Your task to perform on an android device: Search for "logitech g933" on amazon, select the first entry, add it to the cart, then select checkout. Image 0: 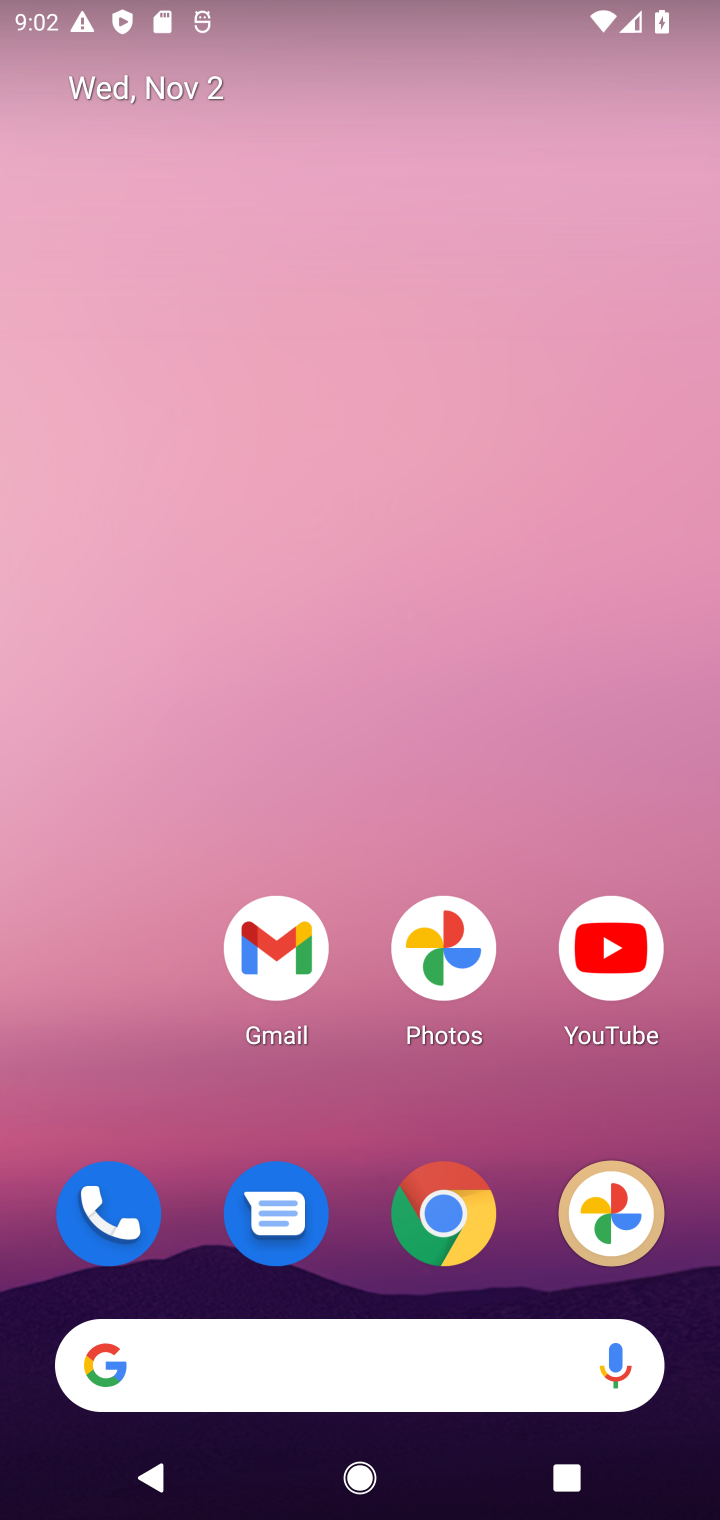
Step 0: click (430, 1217)
Your task to perform on an android device: Search for "logitech g933" on amazon, select the first entry, add it to the cart, then select checkout. Image 1: 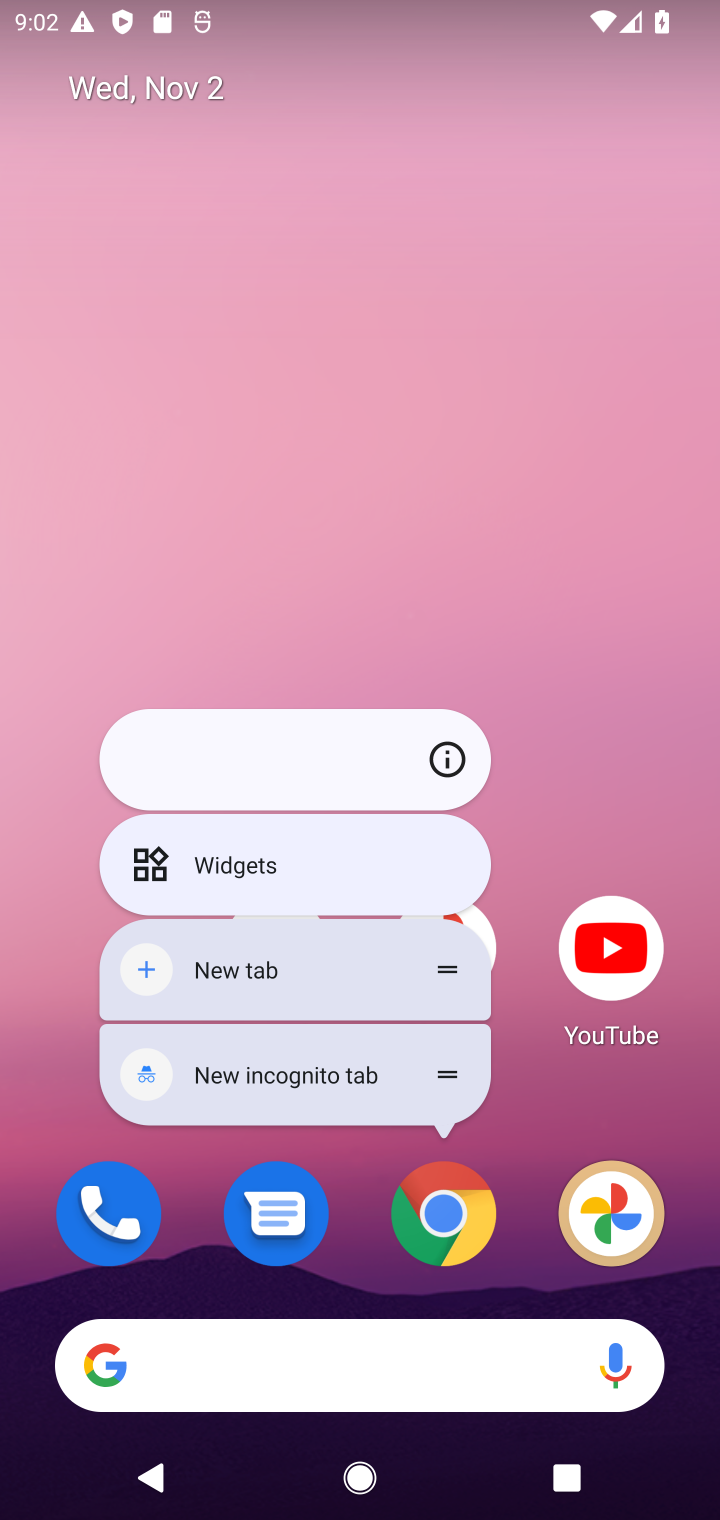
Step 1: click (430, 1217)
Your task to perform on an android device: Search for "logitech g933" on amazon, select the first entry, add it to the cart, then select checkout. Image 2: 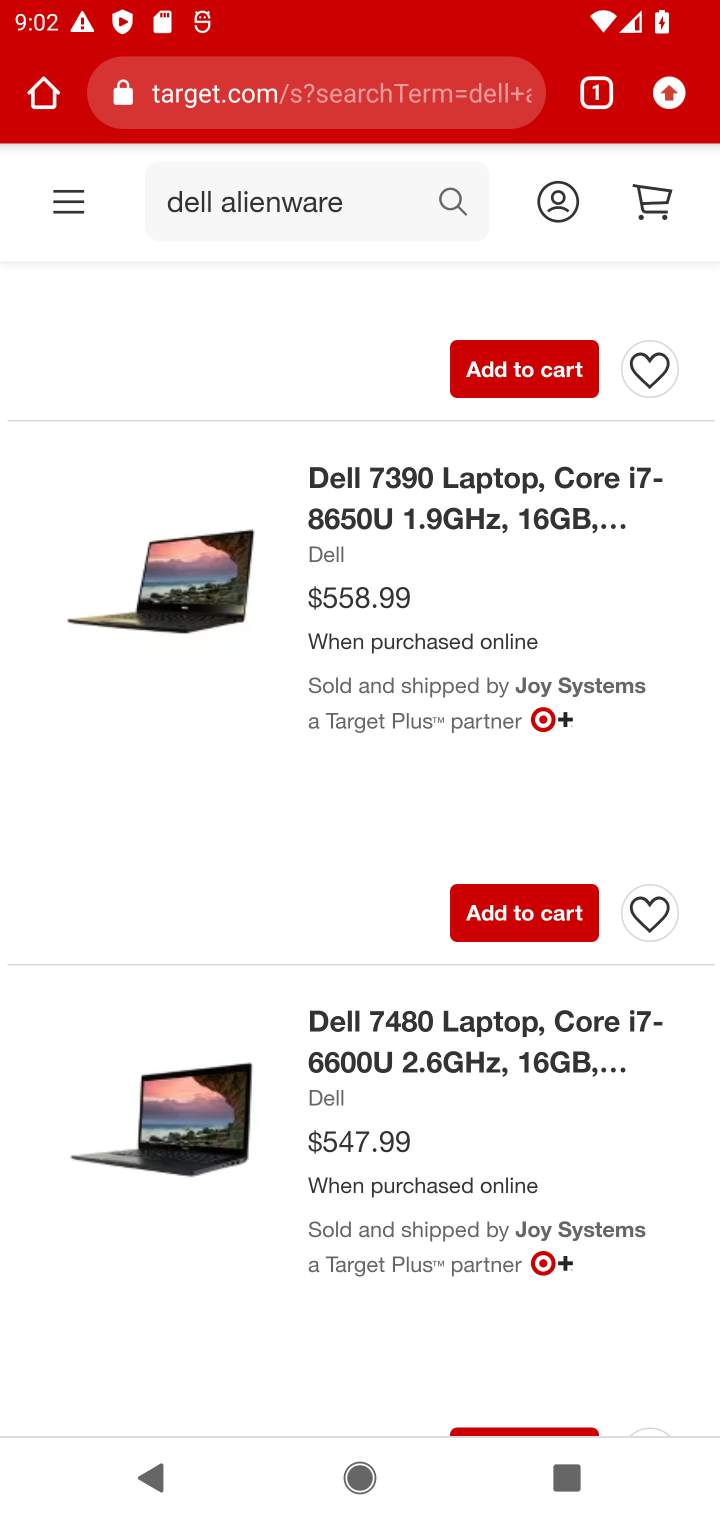
Step 2: click (288, 101)
Your task to perform on an android device: Search for "logitech g933" on amazon, select the first entry, add it to the cart, then select checkout. Image 3: 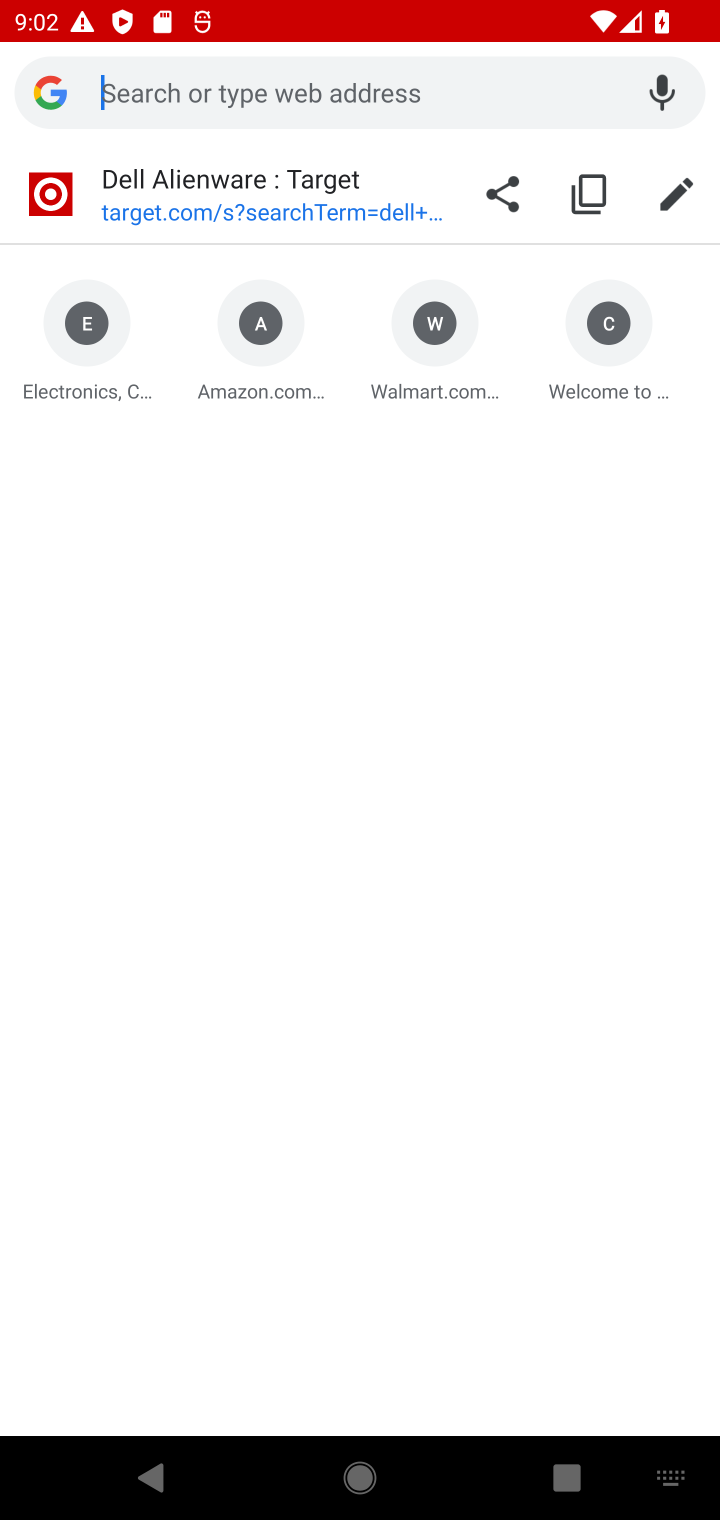
Step 3: click (269, 338)
Your task to perform on an android device: Search for "logitech g933" on amazon, select the first entry, add it to the cart, then select checkout. Image 4: 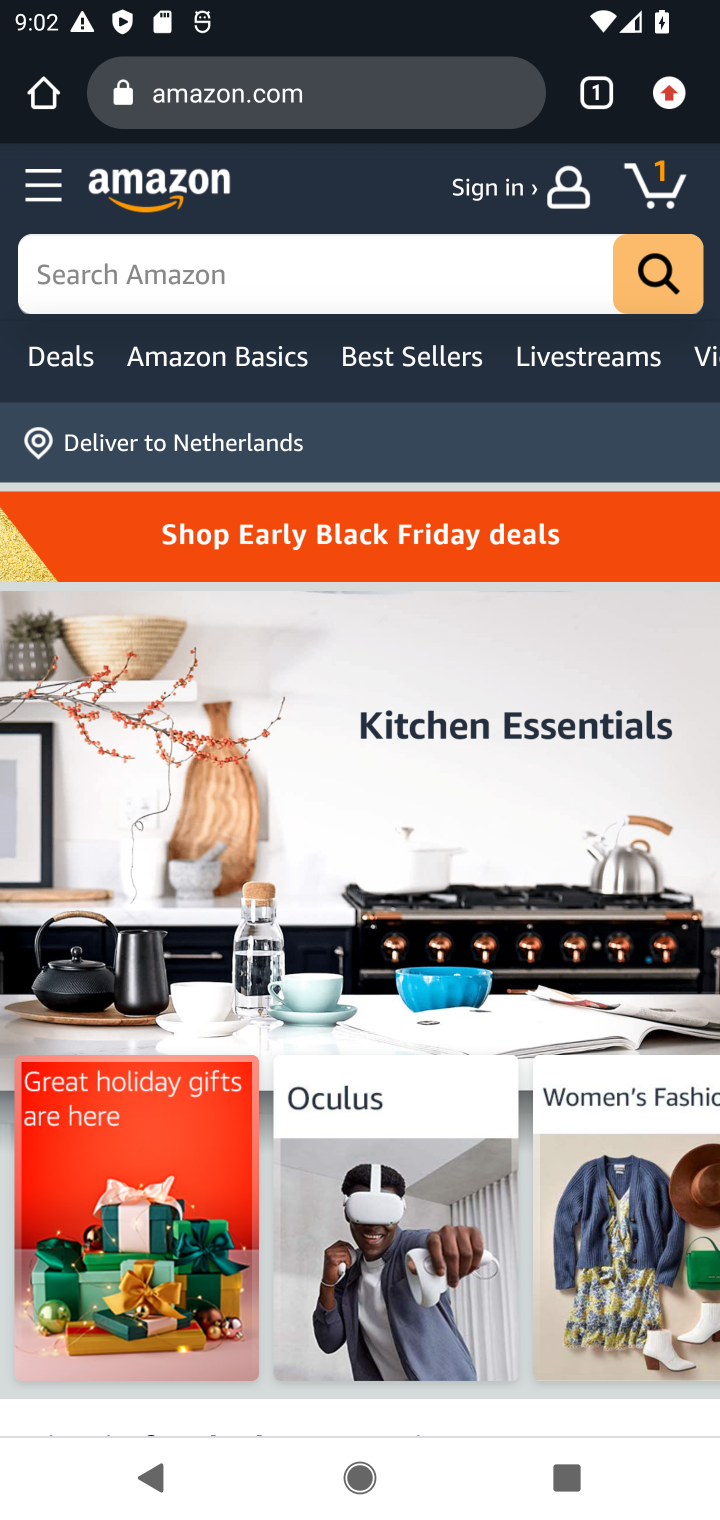
Step 4: click (206, 287)
Your task to perform on an android device: Search for "logitech g933" on amazon, select the first entry, add it to the cart, then select checkout. Image 5: 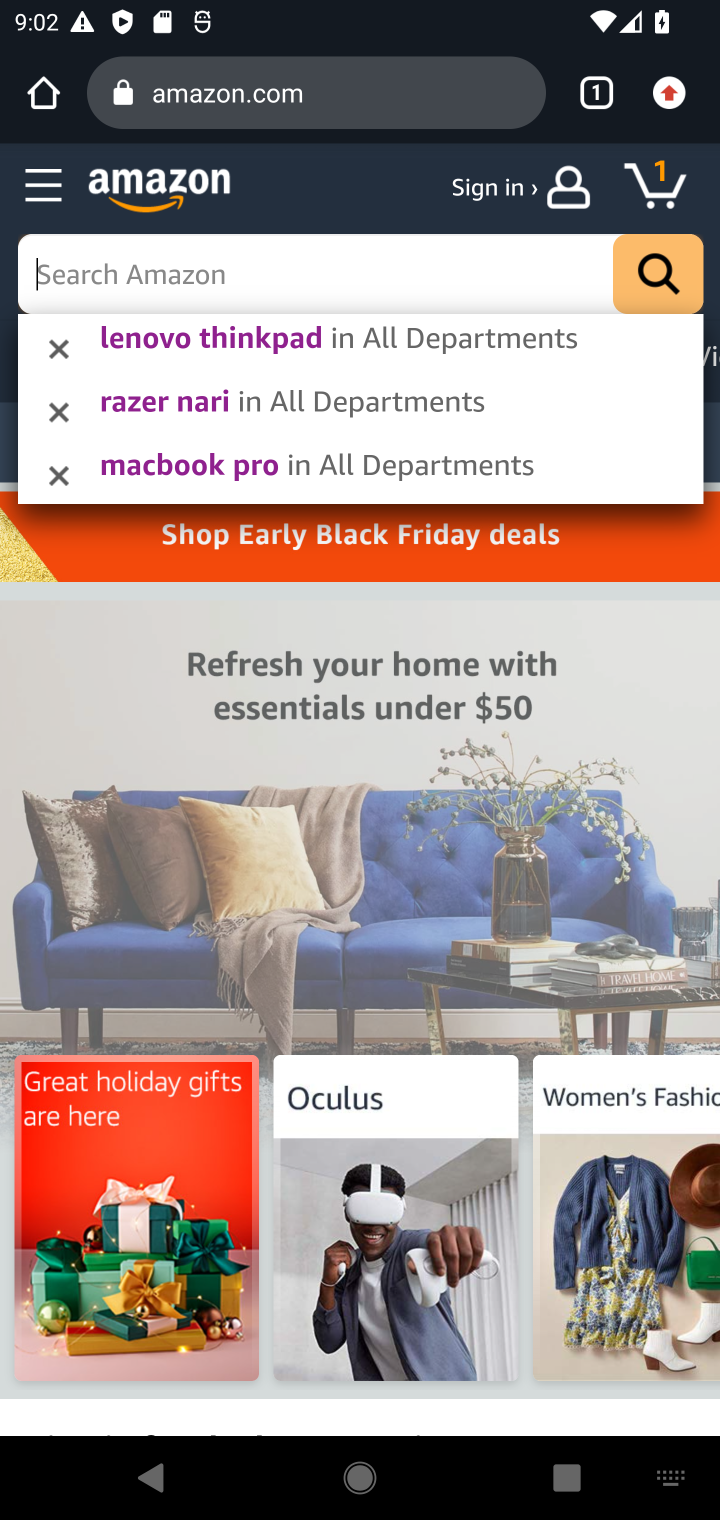
Step 5: type "logitech g933"
Your task to perform on an android device: Search for "logitech g933" on amazon, select the first entry, add it to the cart, then select checkout. Image 6: 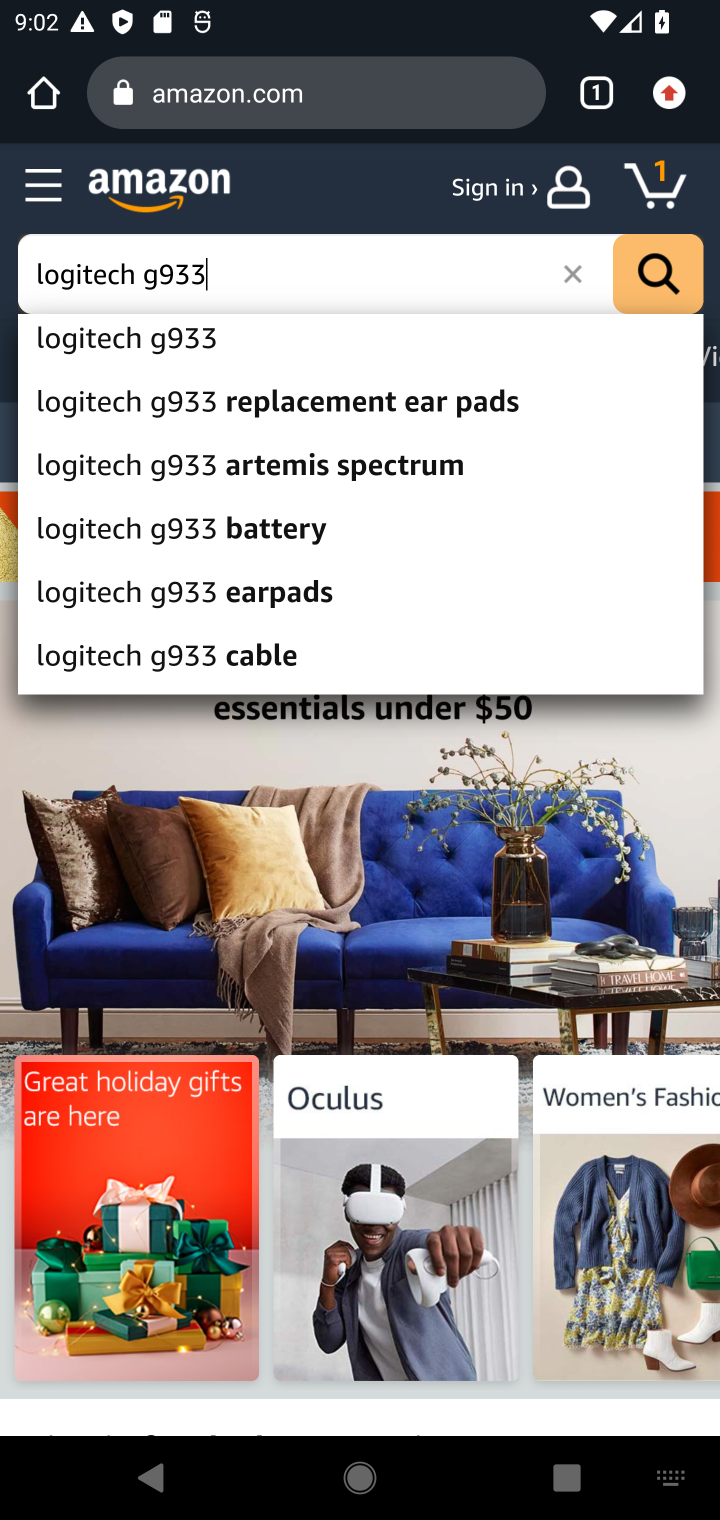
Step 6: click (89, 345)
Your task to perform on an android device: Search for "logitech g933" on amazon, select the first entry, add it to the cart, then select checkout. Image 7: 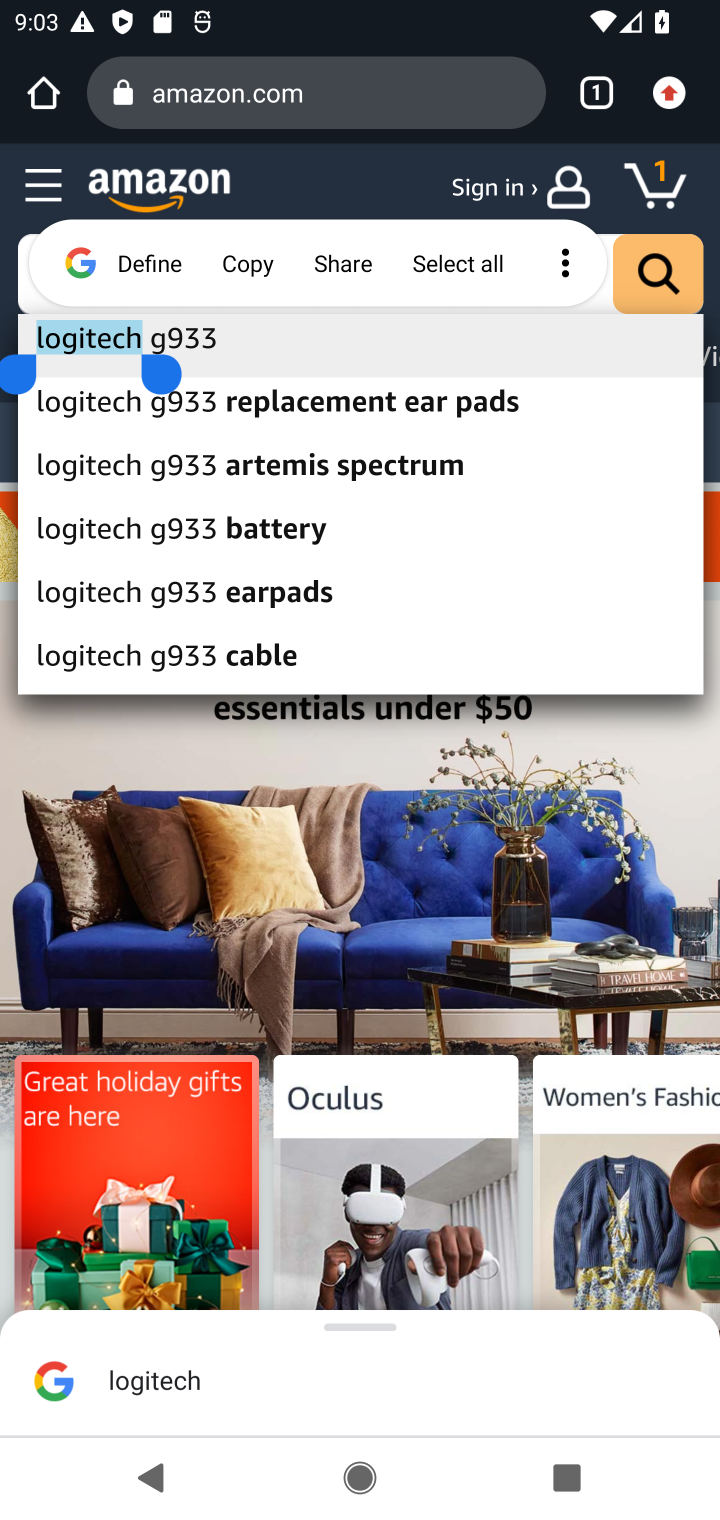
Step 7: click (199, 352)
Your task to perform on an android device: Search for "logitech g933" on amazon, select the first entry, add it to the cart, then select checkout. Image 8: 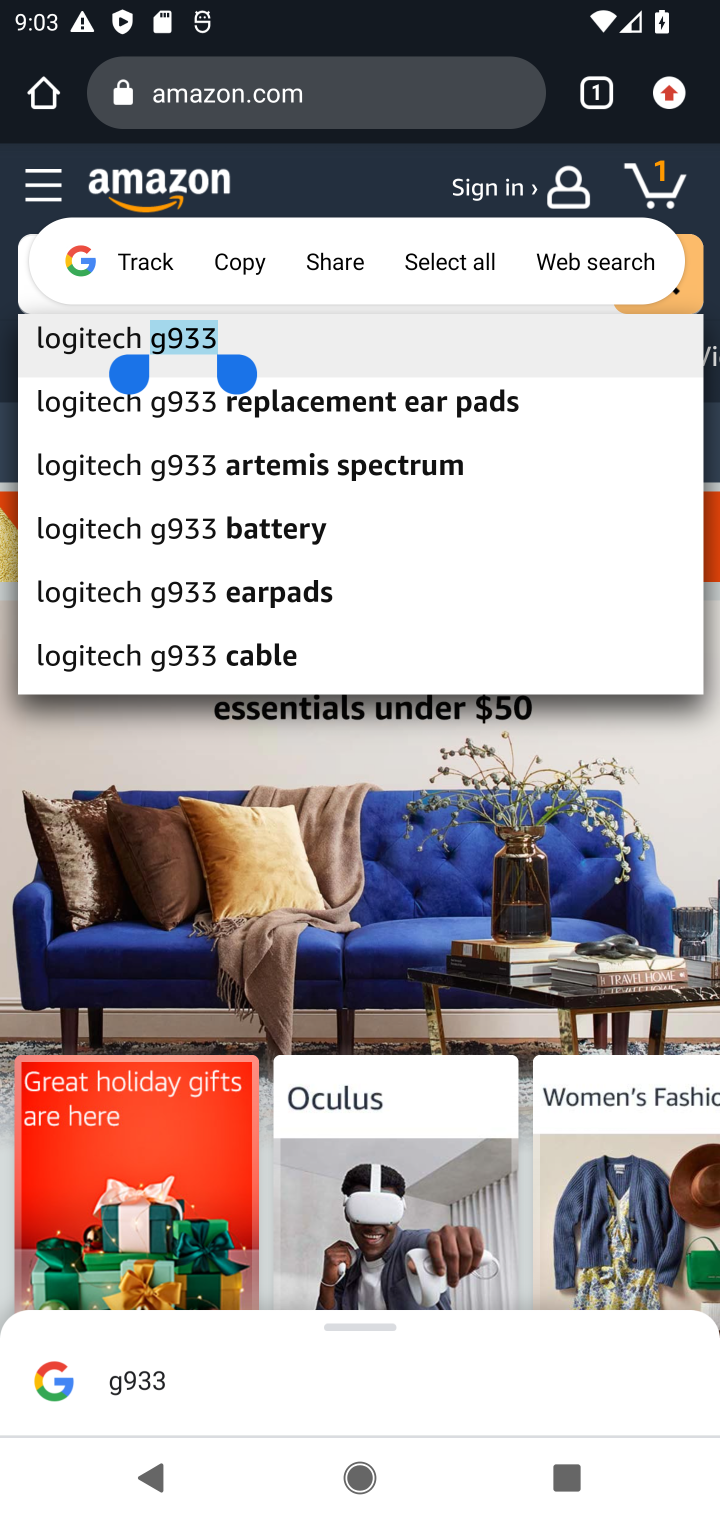
Step 8: click (141, 347)
Your task to perform on an android device: Search for "logitech g933" on amazon, select the first entry, add it to the cart, then select checkout. Image 9: 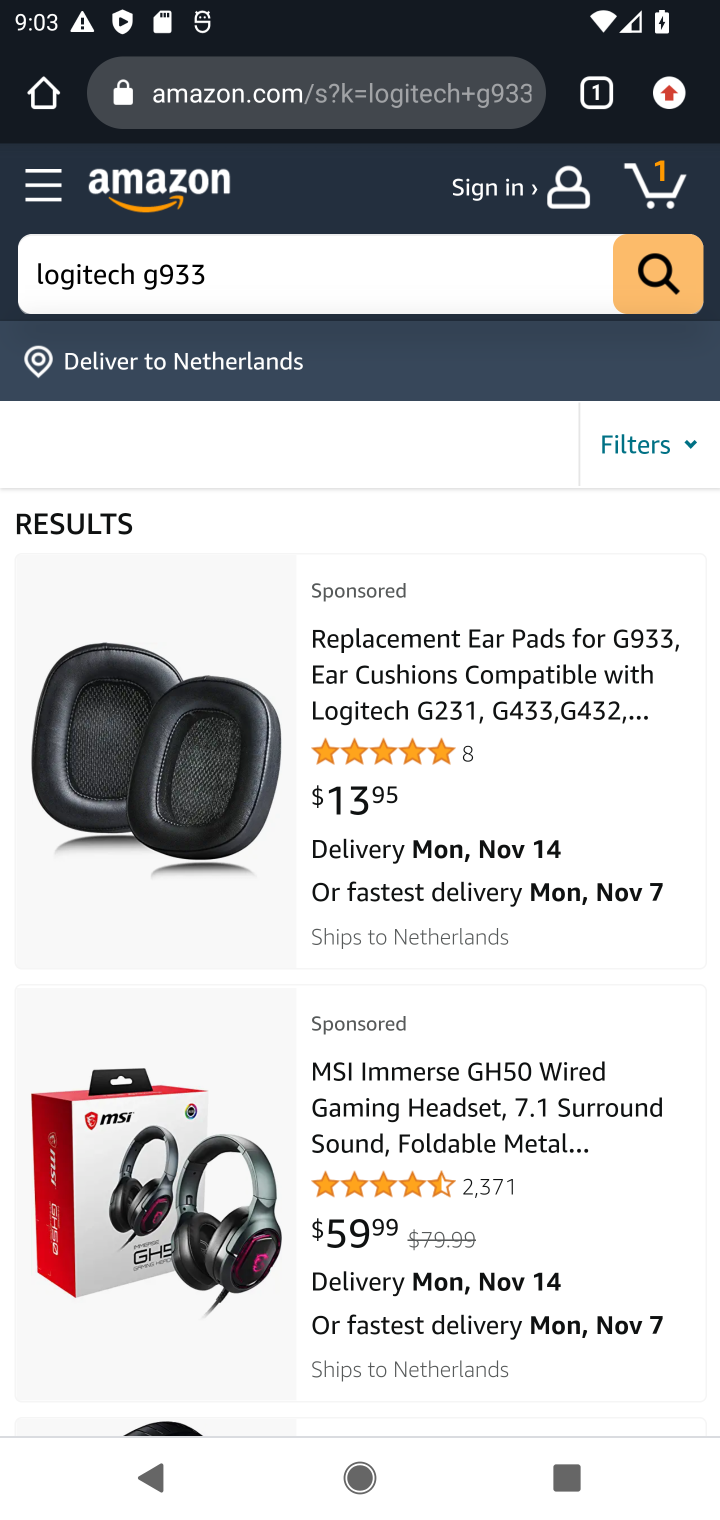
Step 9: click (346, 734)
Your task to perform on an android device: Search for "logitech g933" on amazon, select the first entry, add it to the cart, then select checkout. Image 10: 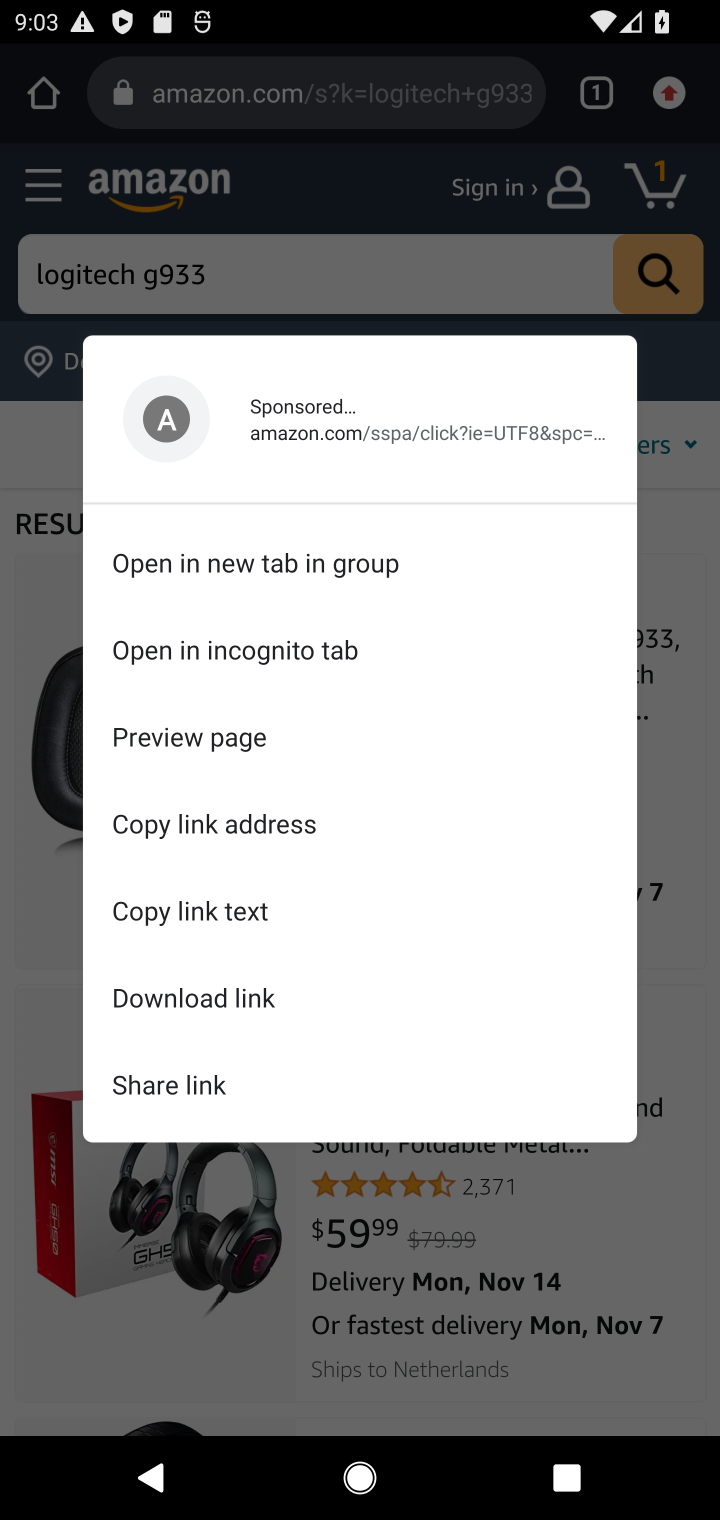
Step 10: click (72, 692)
Your task to perform on an android device: Search for "logitech g933" on amazon, select the first entry, add it to the cart, then select checkout. Image 11: 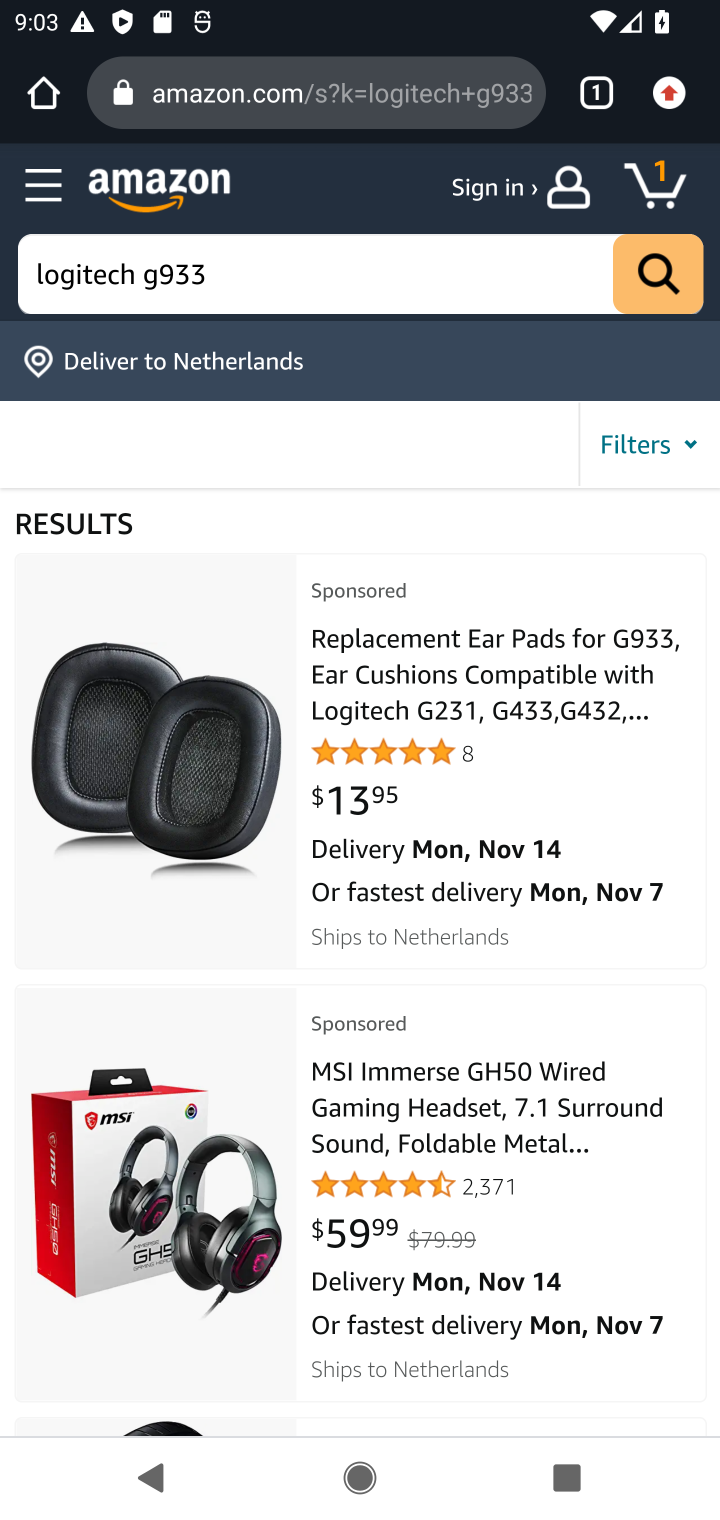
Step 11: click (318, 692)
Your task to perform on an android device: Search for "logitech g933" on amazon, select the first entry, add it to the cart, then select checkout. Image 12: 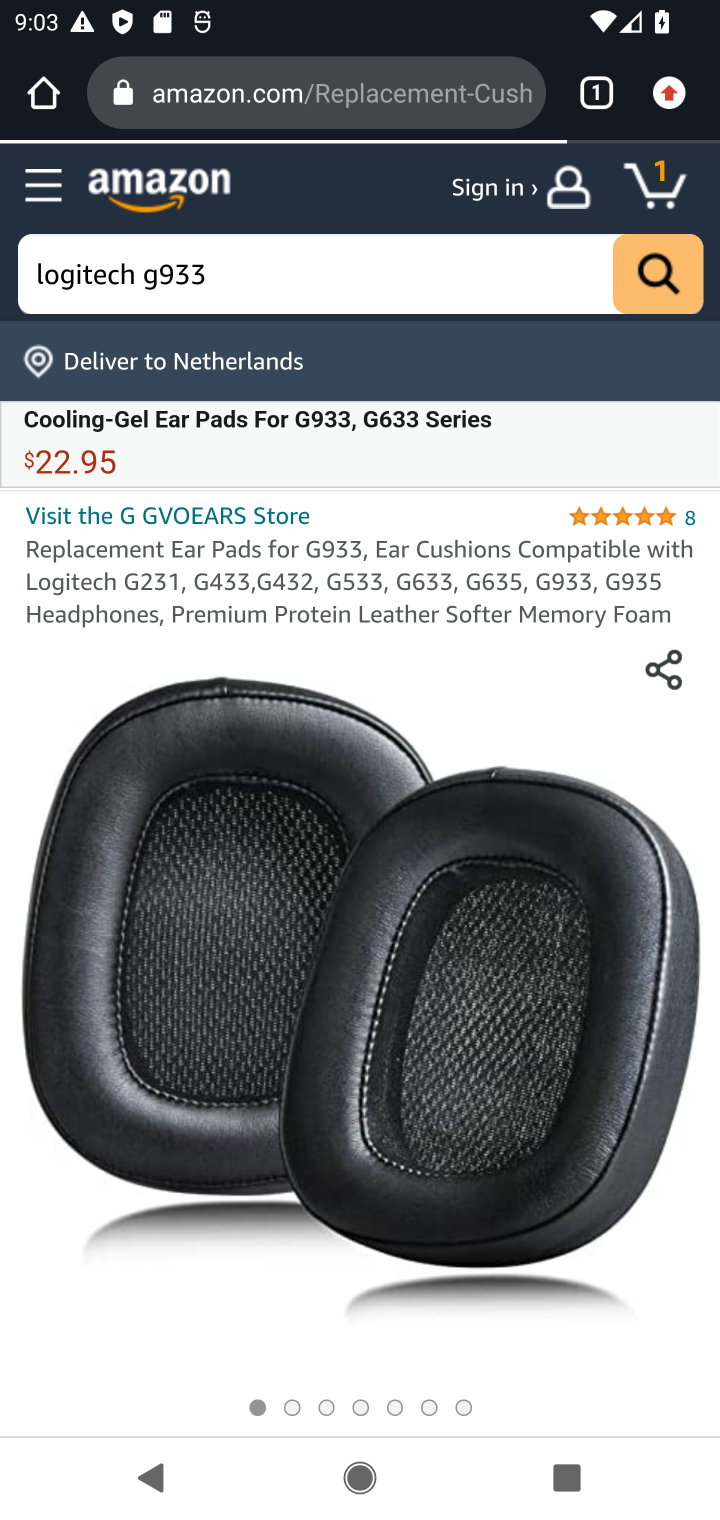
Step 12: drag from (391, 853) to (403, 352)
Your task to perform on an android device: Search for "logitech g933" on amazon, select the first entry, add it to the cart, then select checkout. Image 13: 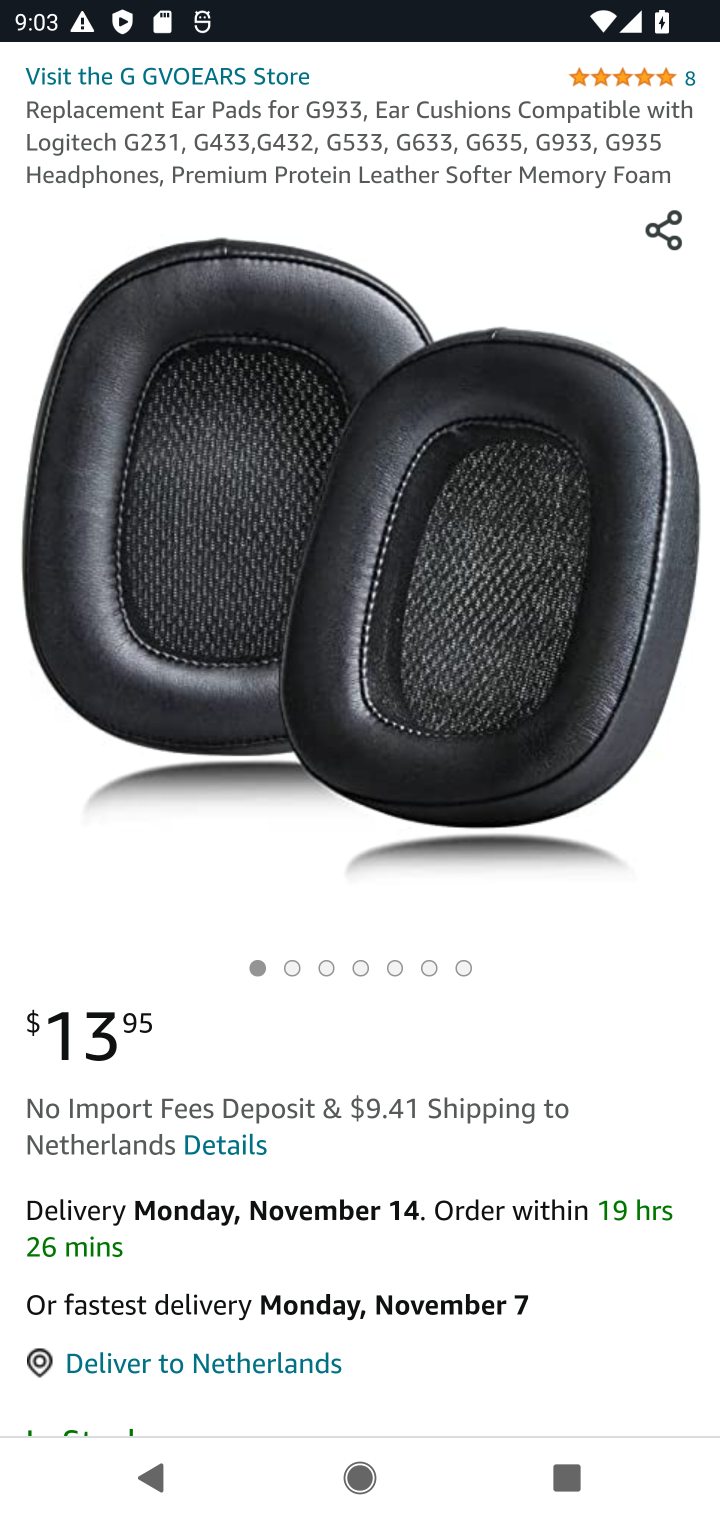
Step 13: drag from (374, 1035) to (338, 445)
Your task to perform on an android device: Search for "logitech g933" on amazon, select the first entry, add it to the cart, then select checkout. Image 14: 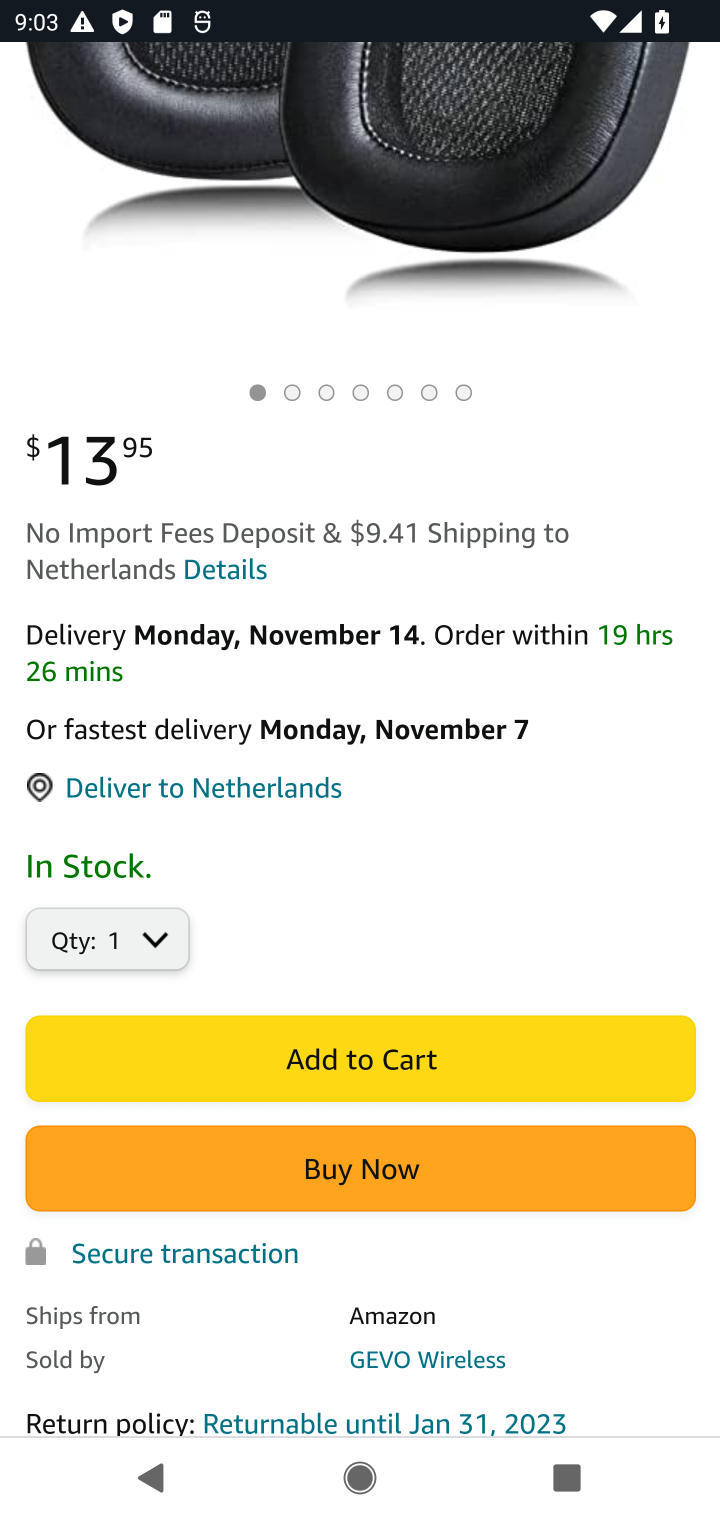
Step 14: click (327, 1057)
Your task to perform on an android device: Search for "logitech g933" on amazon, select the first entry, add it to the cart, then select checkout. Image 15: 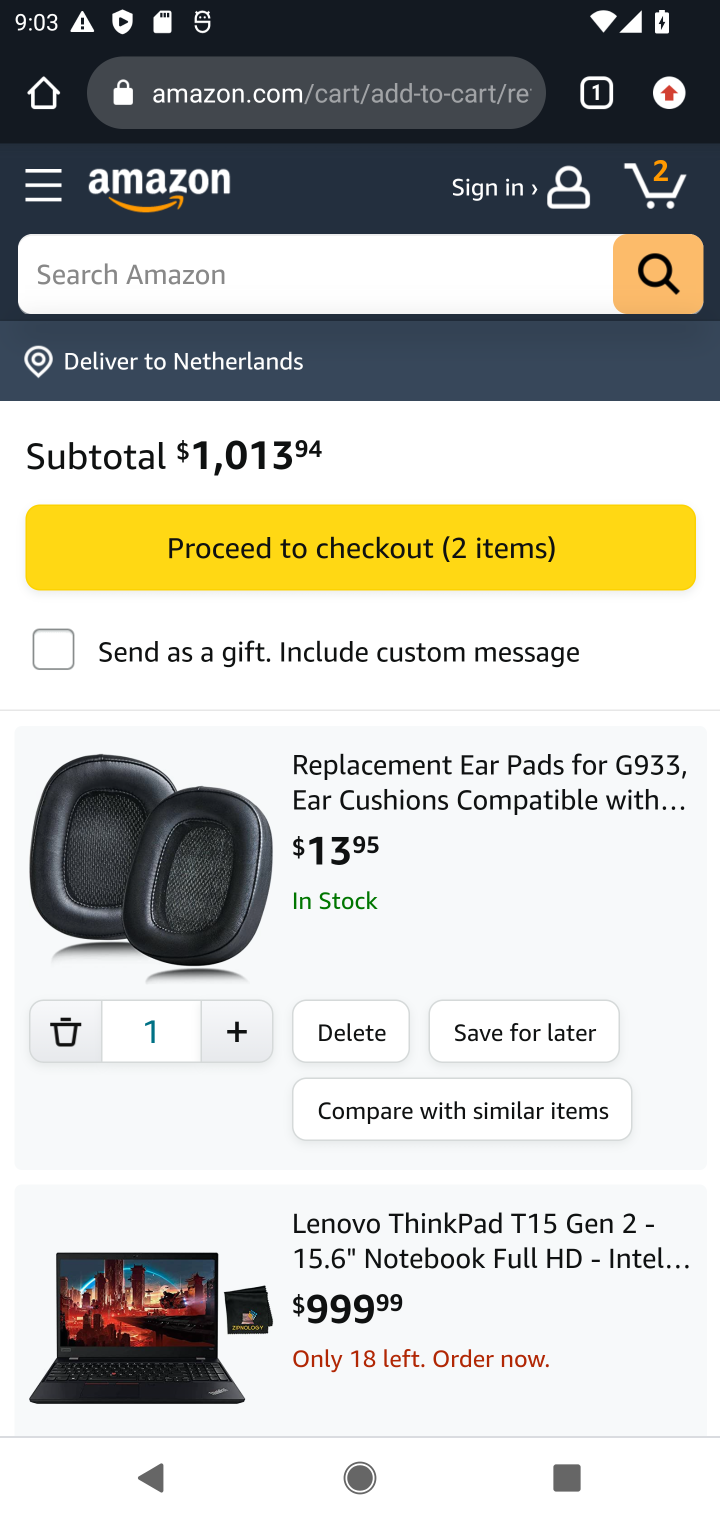
Step 15: click (317, 547)
Your task to perform on an android device: Search for "logitech g933" on amazon, select the first entry, add it to the cart, then select checkout. Image 16: 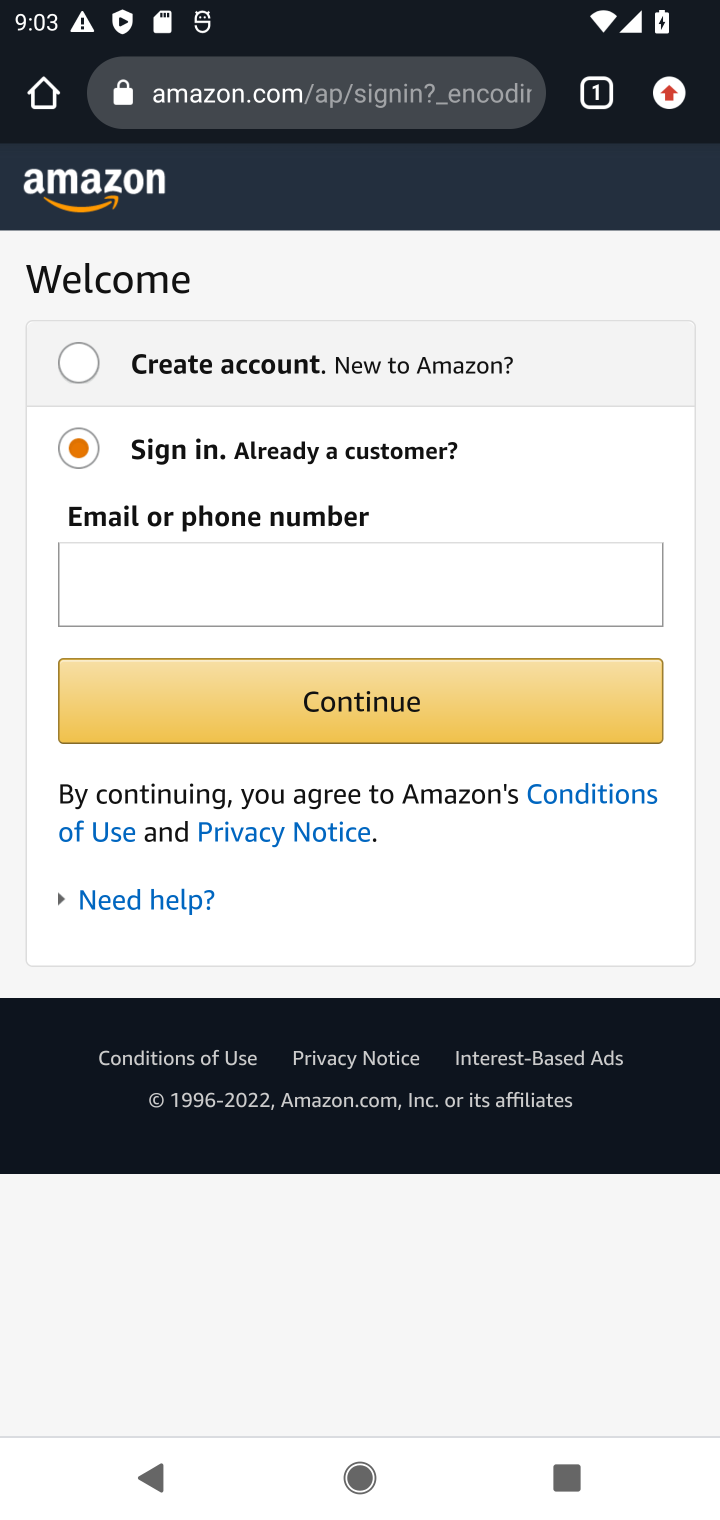
Step 16: task complete